Your task to perform on an android device: allow cookies in the chrome app Image 0: 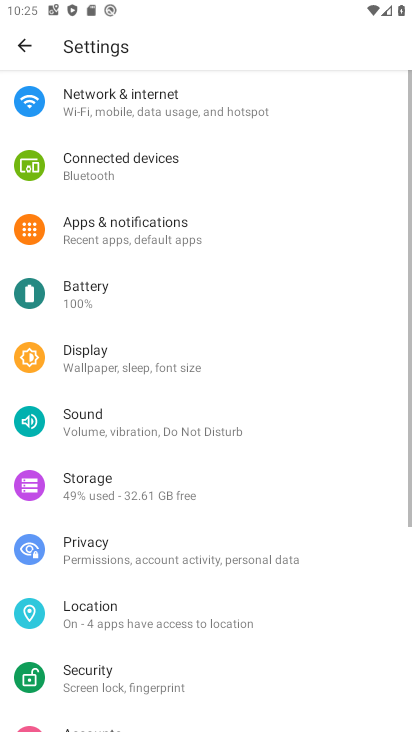
Step 0: press home button
Your task to perform on an android device: allow cookies in the chrome app Image 1: 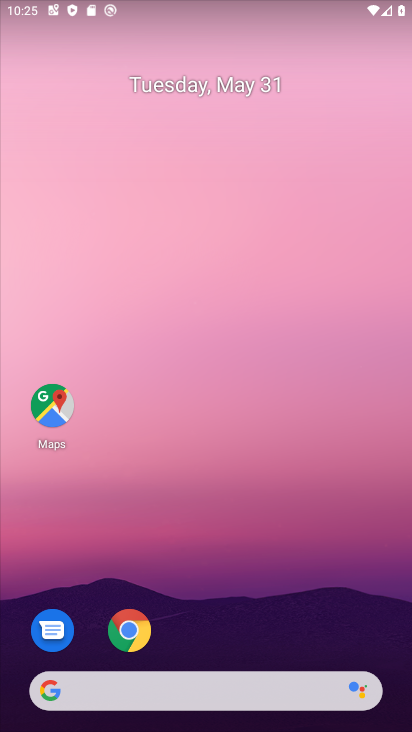
Step 1: click (135, 625)
Your task to perform on an android device: allow cookies in the chrome app Image 2: 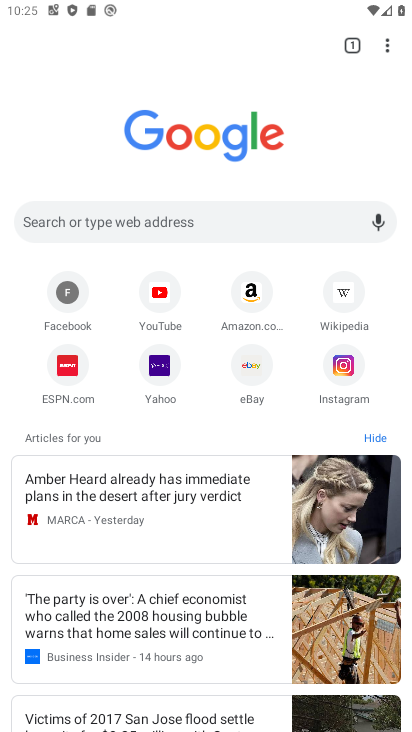
Step 2: click (383, 53)
Your task to perform on an android device: allow cookies in the chrome app Image 3: 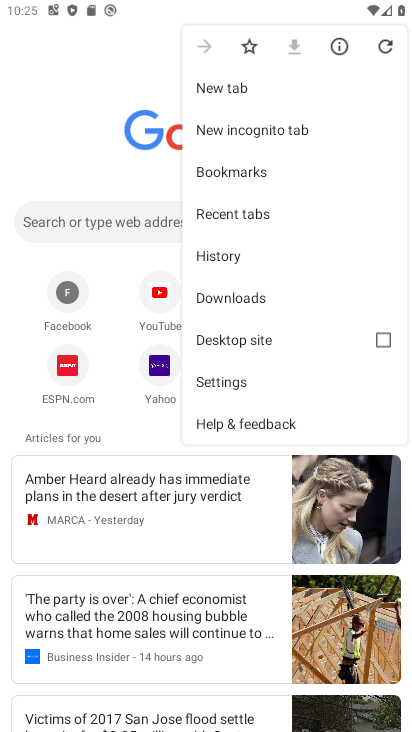
Step 3: click (250, 382)
Your task to perform on an android device: allow cookies in the chrome app Image 4: 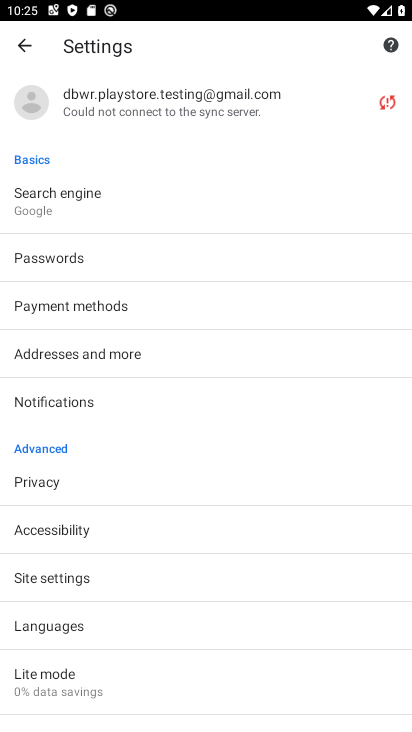
Step 4: click (66, 581)
Your task to perform on an android device: allow cookies in the chrome app Image 5: 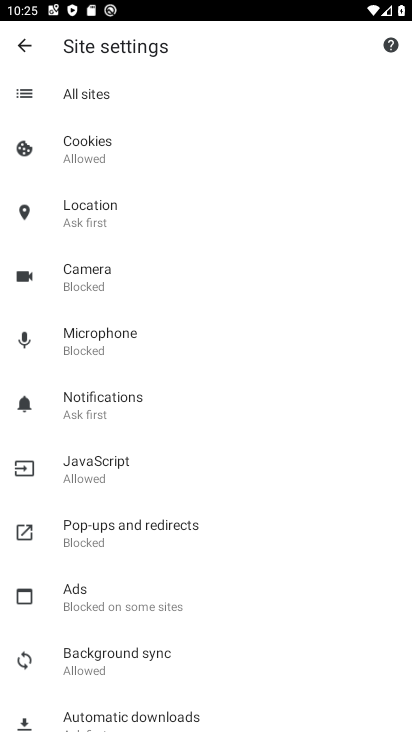
Step 5: click (112, 155)
Your task to perform on an android device: allow cookies in the chrome app Image 6: 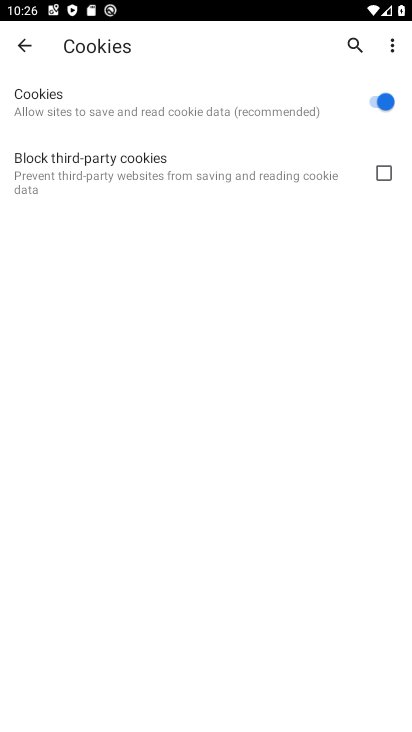
Step 6: task complete